Your task to perform on an android device: turn on wifi Image 0: 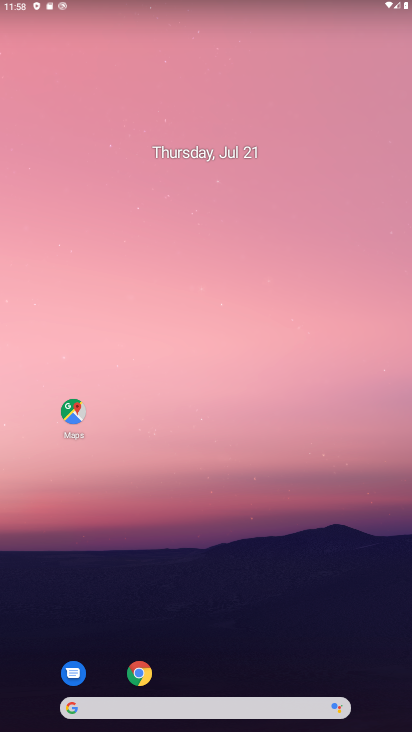
Step 0: drag from (204, 131) to (205, 97)
Your task to perform on an android device: turn on wifi Image 1: 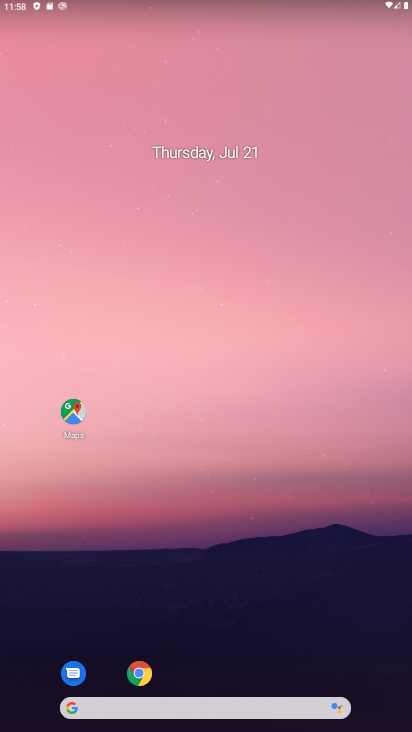
Step 1: drag from (191, 663) to (224, 2)
Your task to perform on an android device: turn on wifi Image 2: 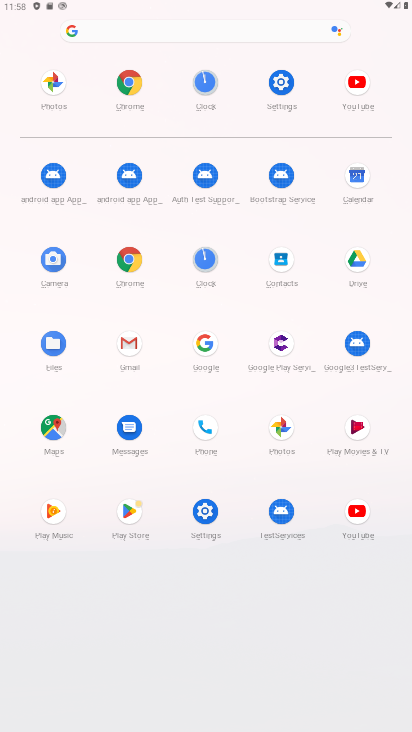
Step 2: click (274, 79)
Your task to perform on an android device: turn on wifi Image 3: 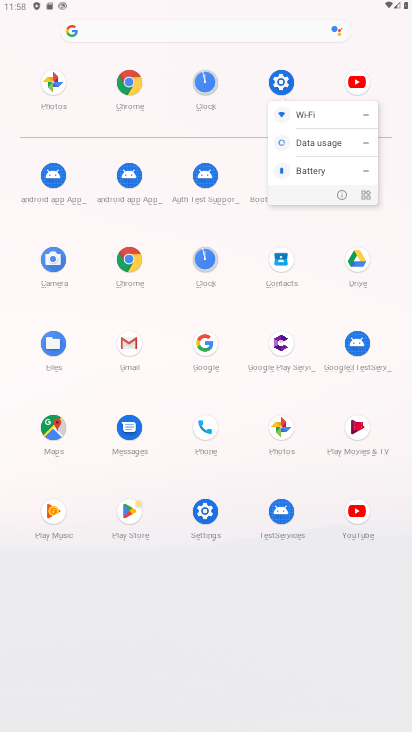
Step 3: click (340, 194)
Your task to perform on an android device: turn on wifi Image 4: 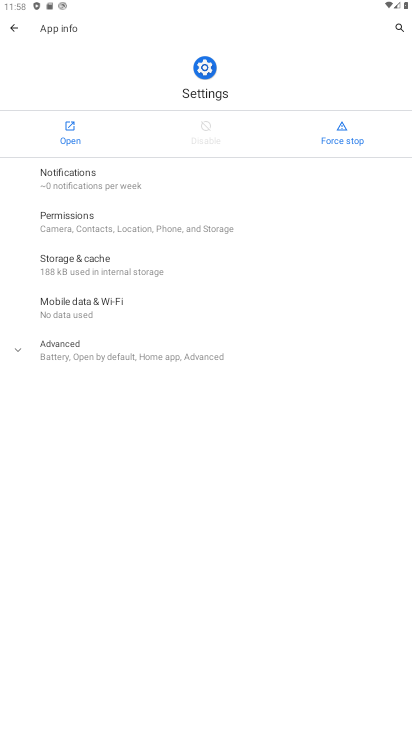
Step 4: click (71, 133)
Your task to perform on an android device: turn on wifi Image 5: 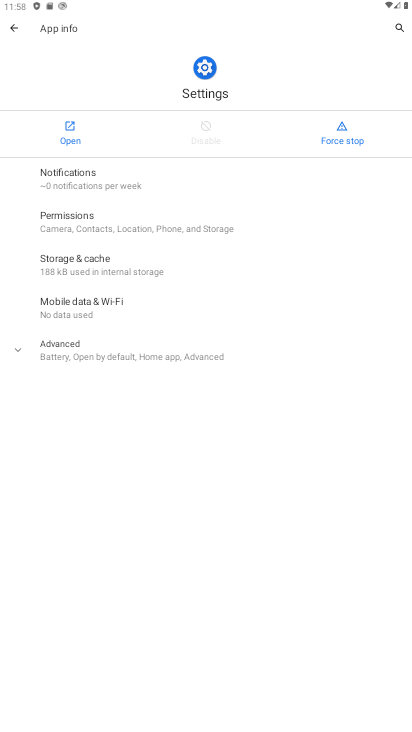
Step 5: click (71, 133)
Your task to perform on an android device: turn on wifi Image 6: 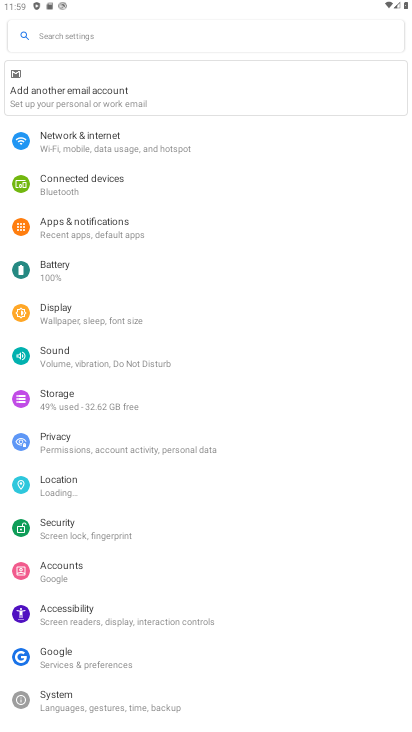
Step 6: click (106, 153)
Your task to perform on an android device: turn on wifi Image 7: 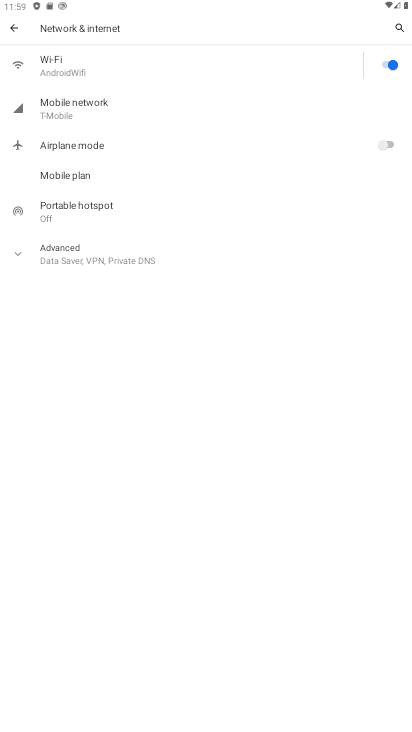
Step 7: click (84, 58)
Your task to perform on an android device: turn on wifi Image 8: 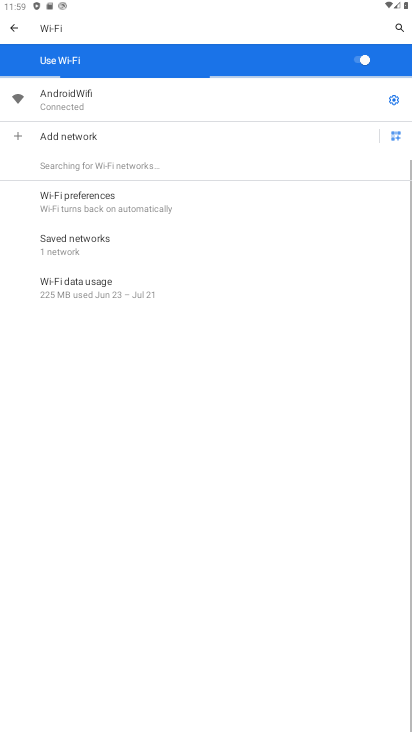
Step 8: task complete